Your task to perform on an android device: turn notification dots off Image 0: 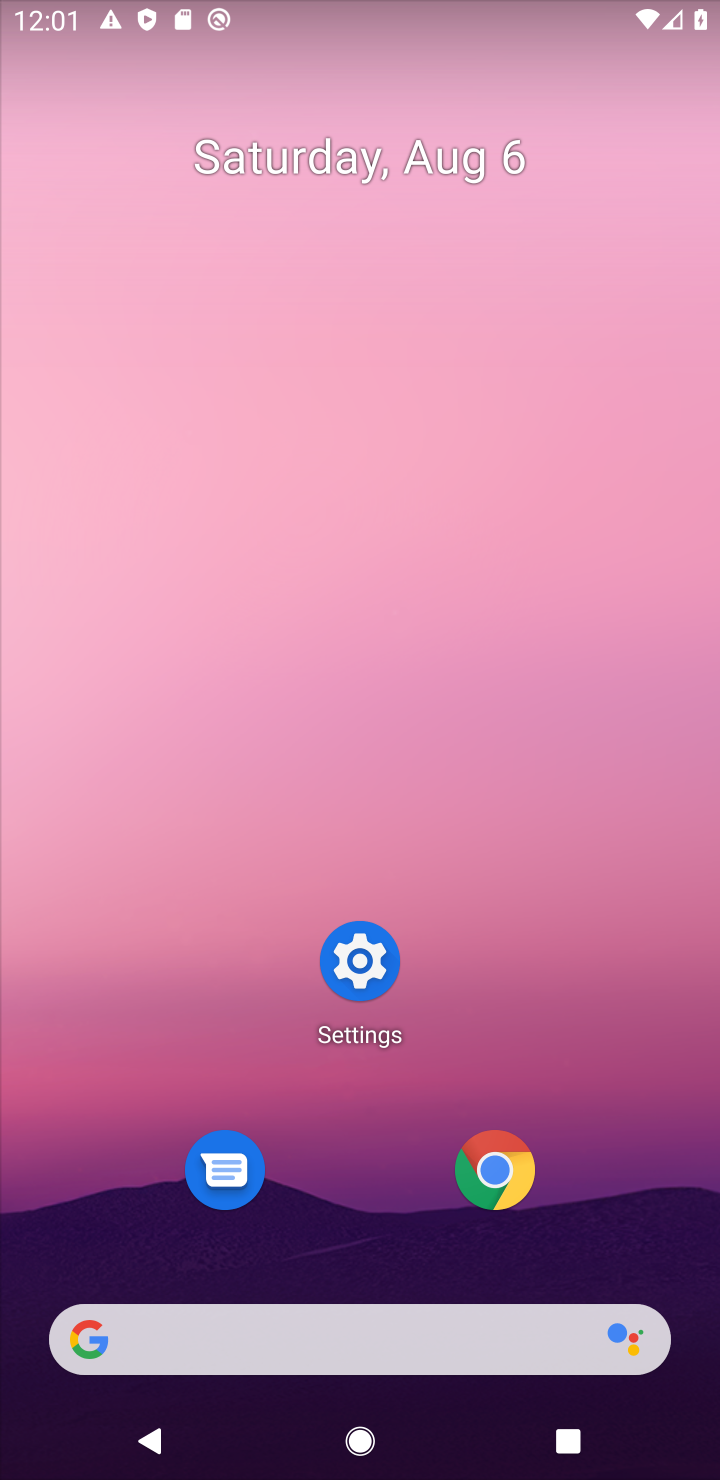
Step 0: click (355, 953)
Your task to perform on an android device: turn notification dots off Image 1: 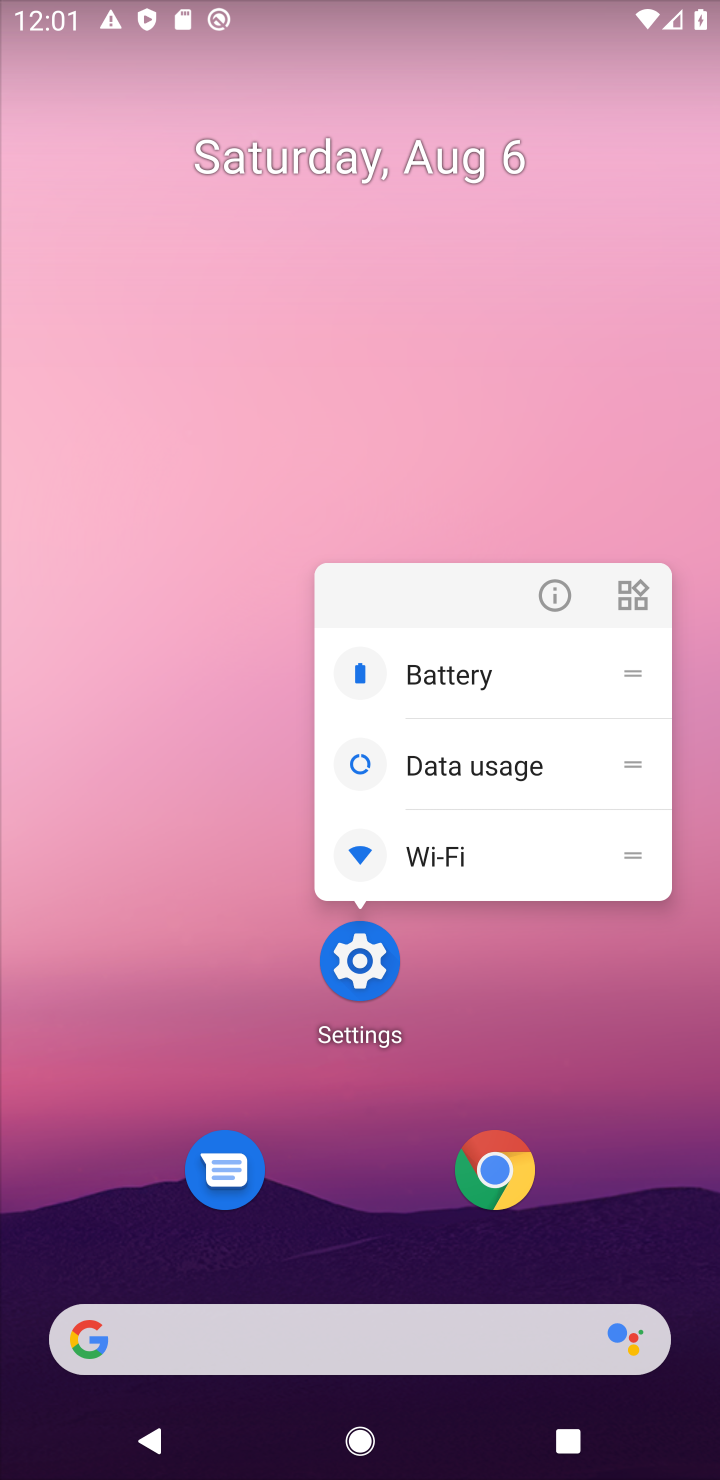
Step 1: click (236, 898)
Your task to perform on an android device: turn notification dots off Image 2: 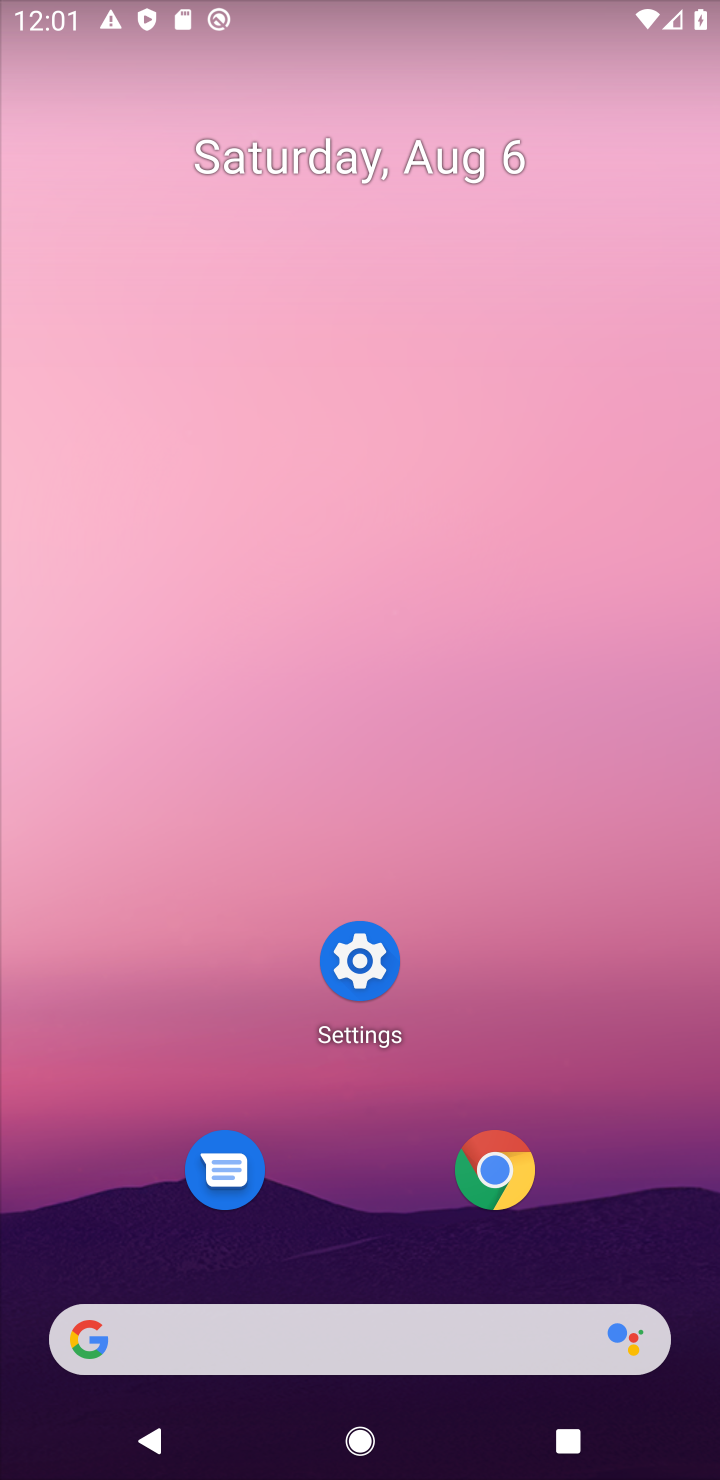
Step 2: click (368, 964)
Your task to perform on an android device: turn notification dots off Image 3: 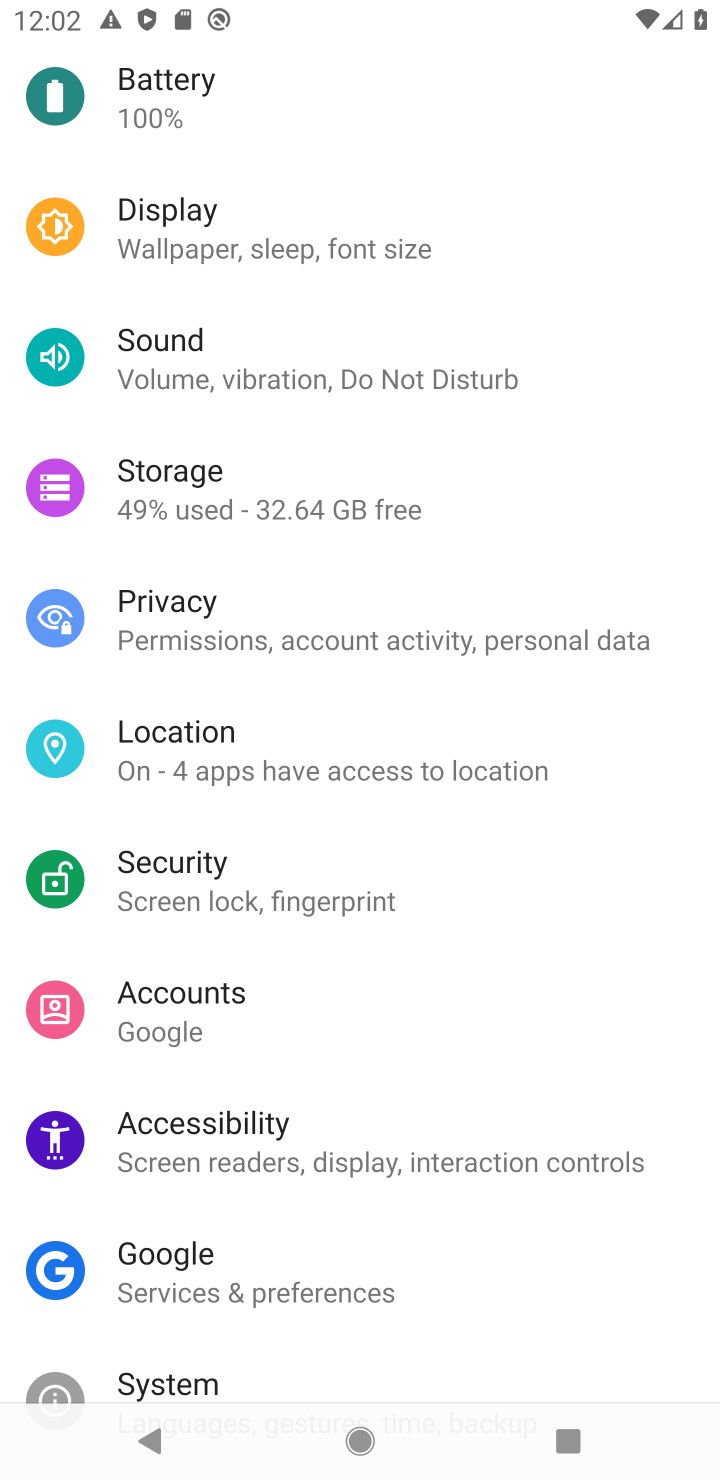
Step 3: drag from (533, 515) to (376, 1291)
Your task to perform on an android device: turn notification dots off Image 4: 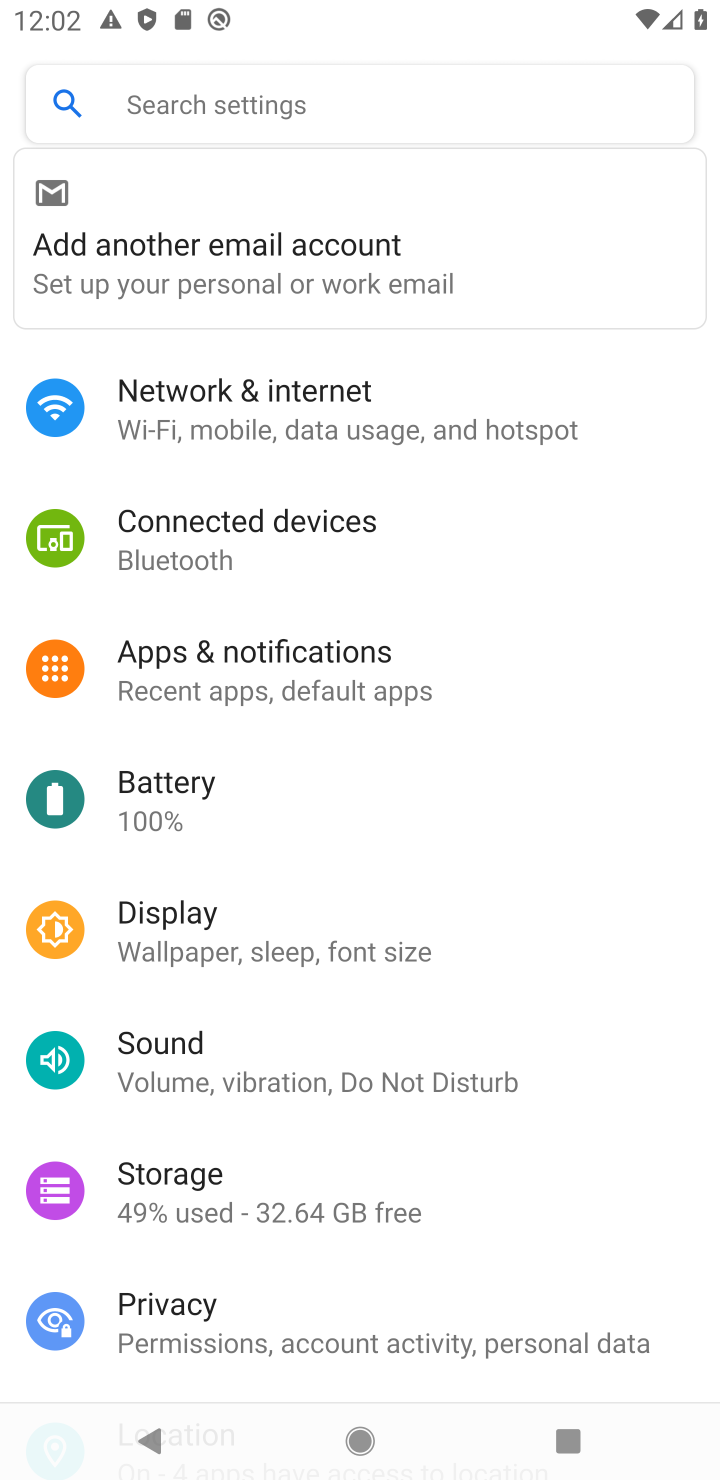
Step 4: click (221, 664)
Your task to perform on an android device: turn notification dots off Image 5: 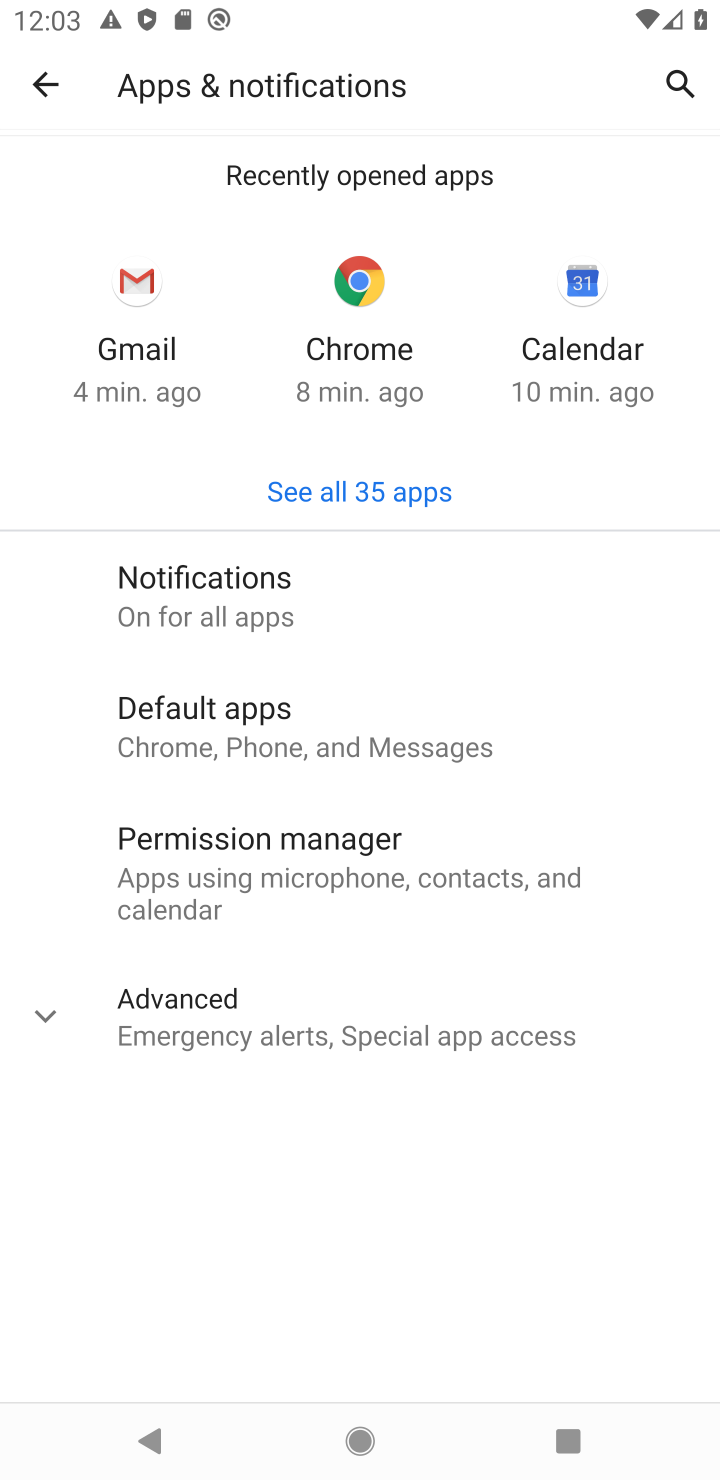
Step 5: click (200, 583)
Your task to perform on an android device: turn notification dots off Image 6: 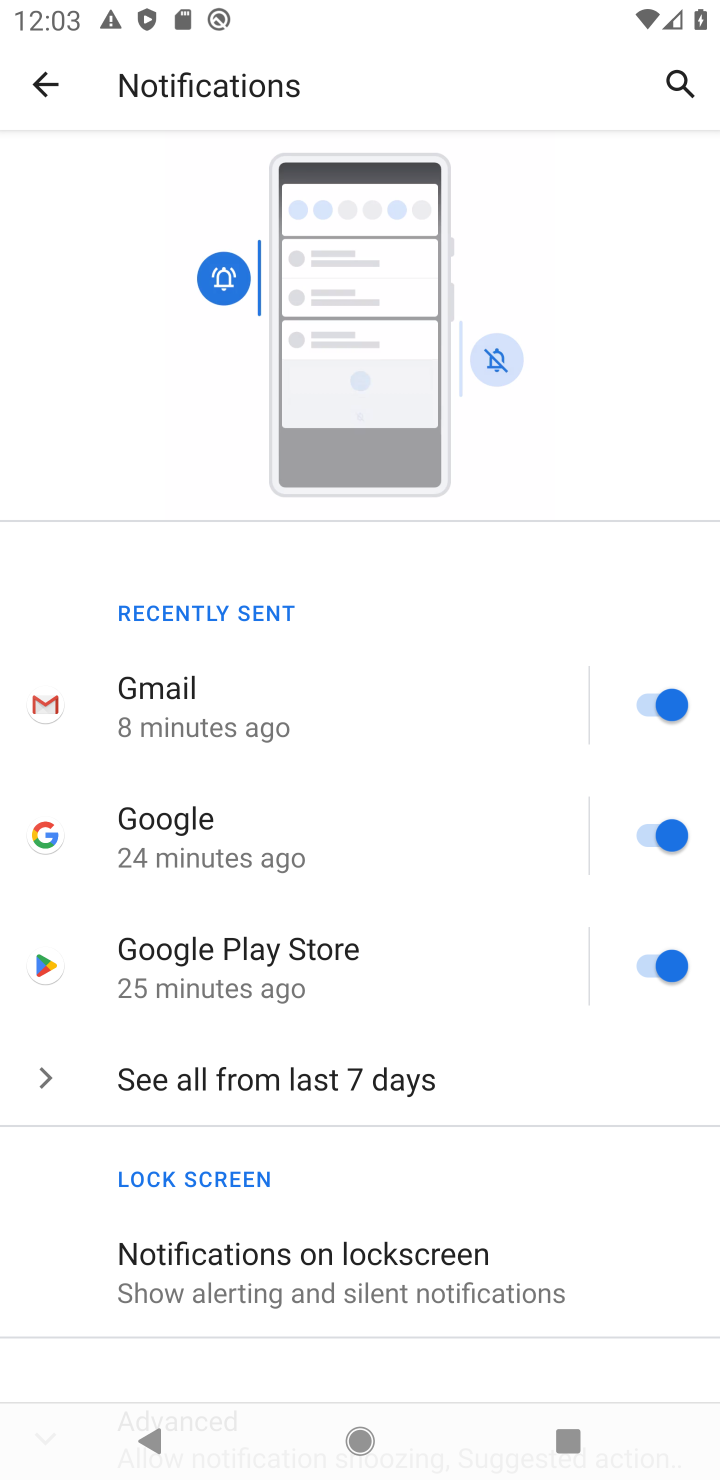
Step 6: drag from (532, 1139) to (518, 573)
Your task to perform on an android device: turn notification dots off Image 7: 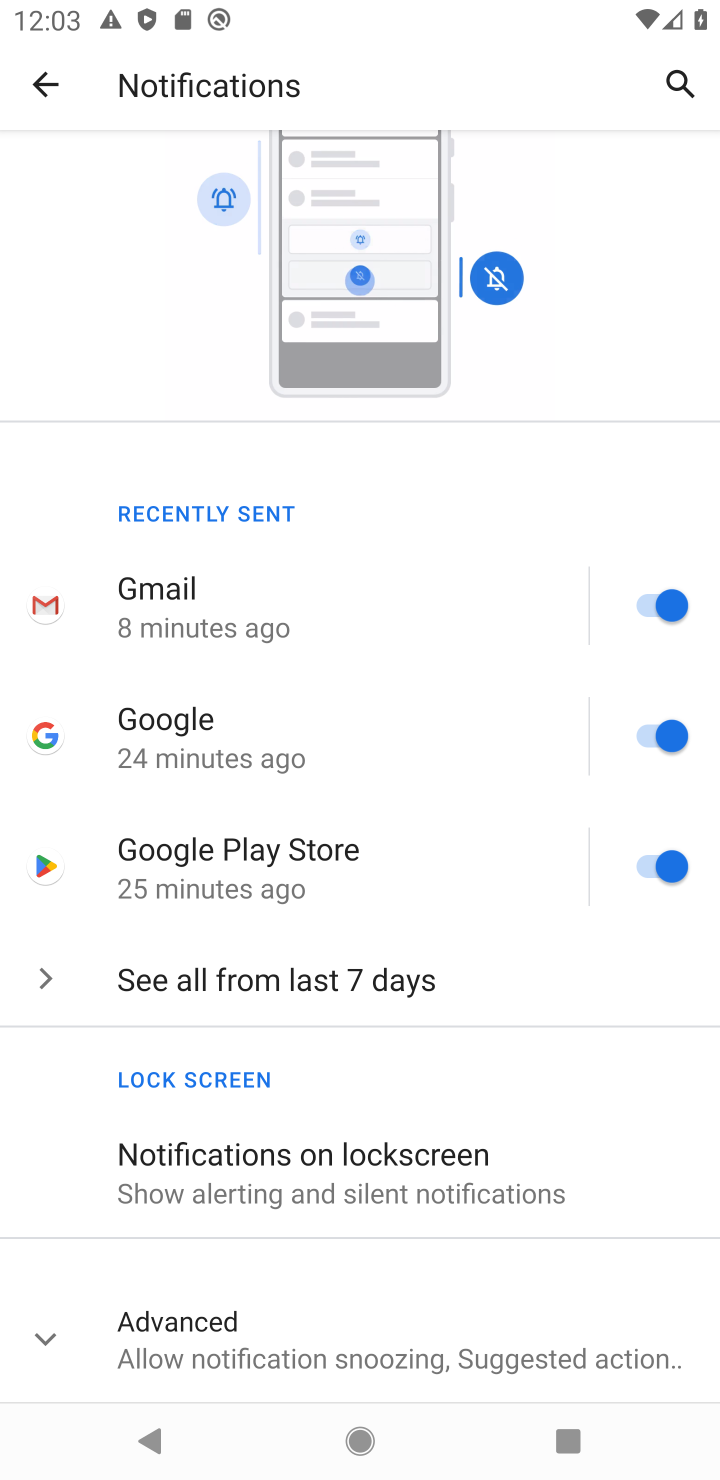
Step 7: click (246, 1307)
Your task to perform on an android device: turn notification dots off Image 8: 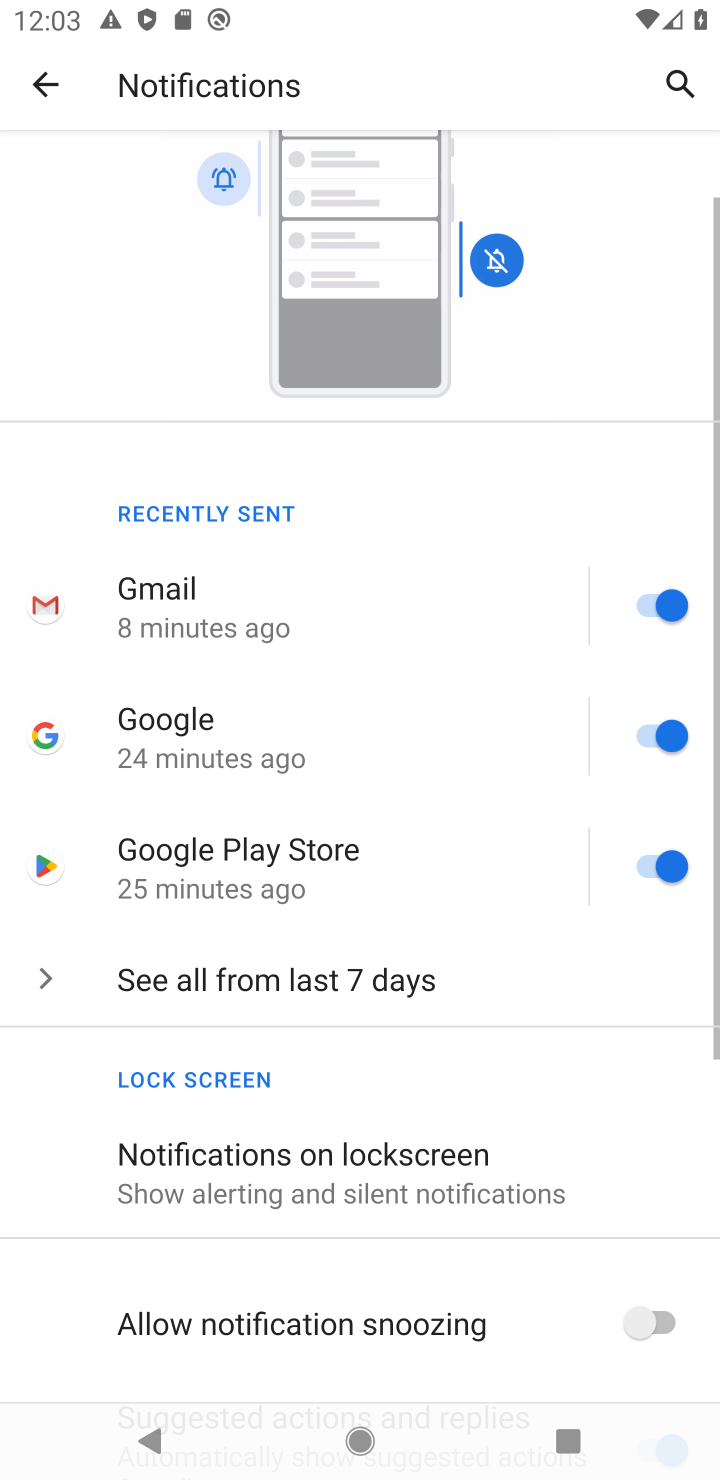
Step 8: drag from (548, 1187) to (582, 367)
Your task to perform on an android device: turn notification dots off Image 9: 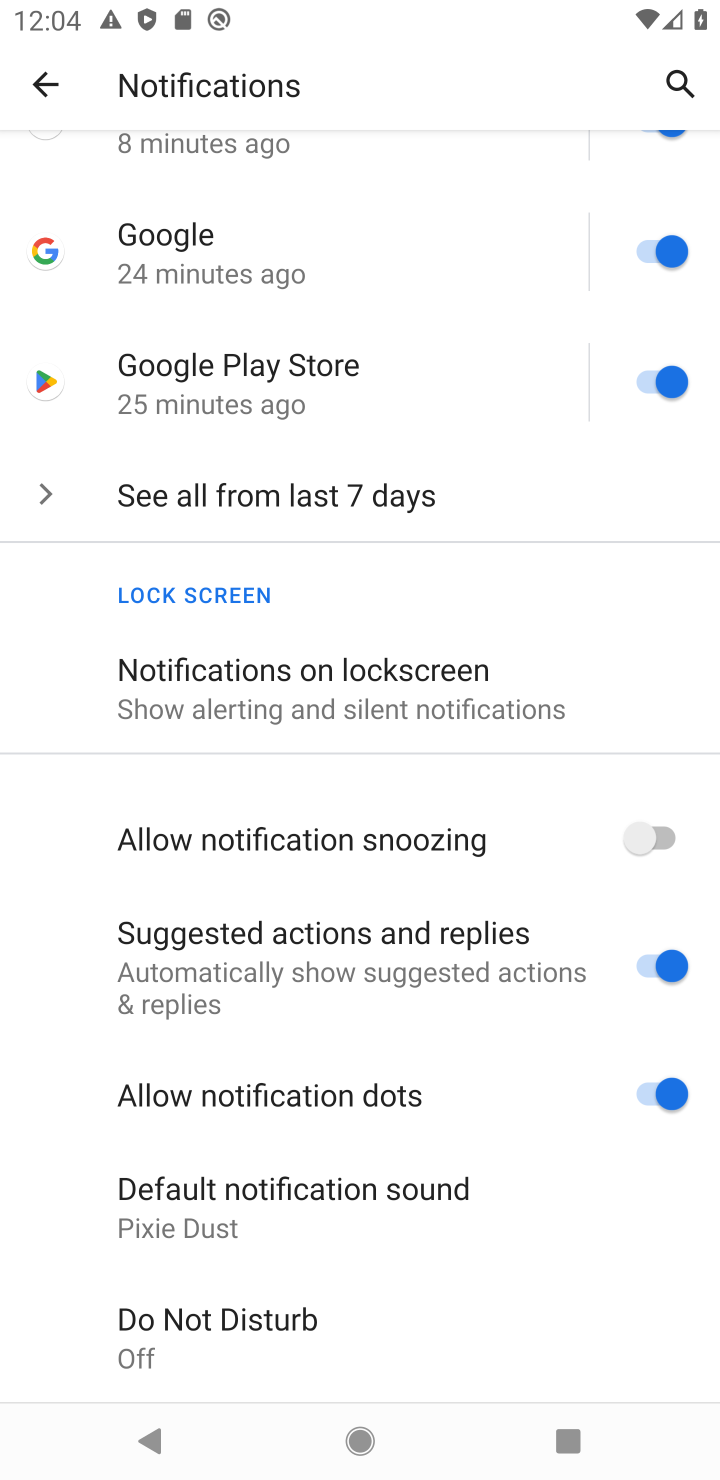
Step 9: click (661, 1095)
Your task to perform on an android device: turn notification dots off Image 10: 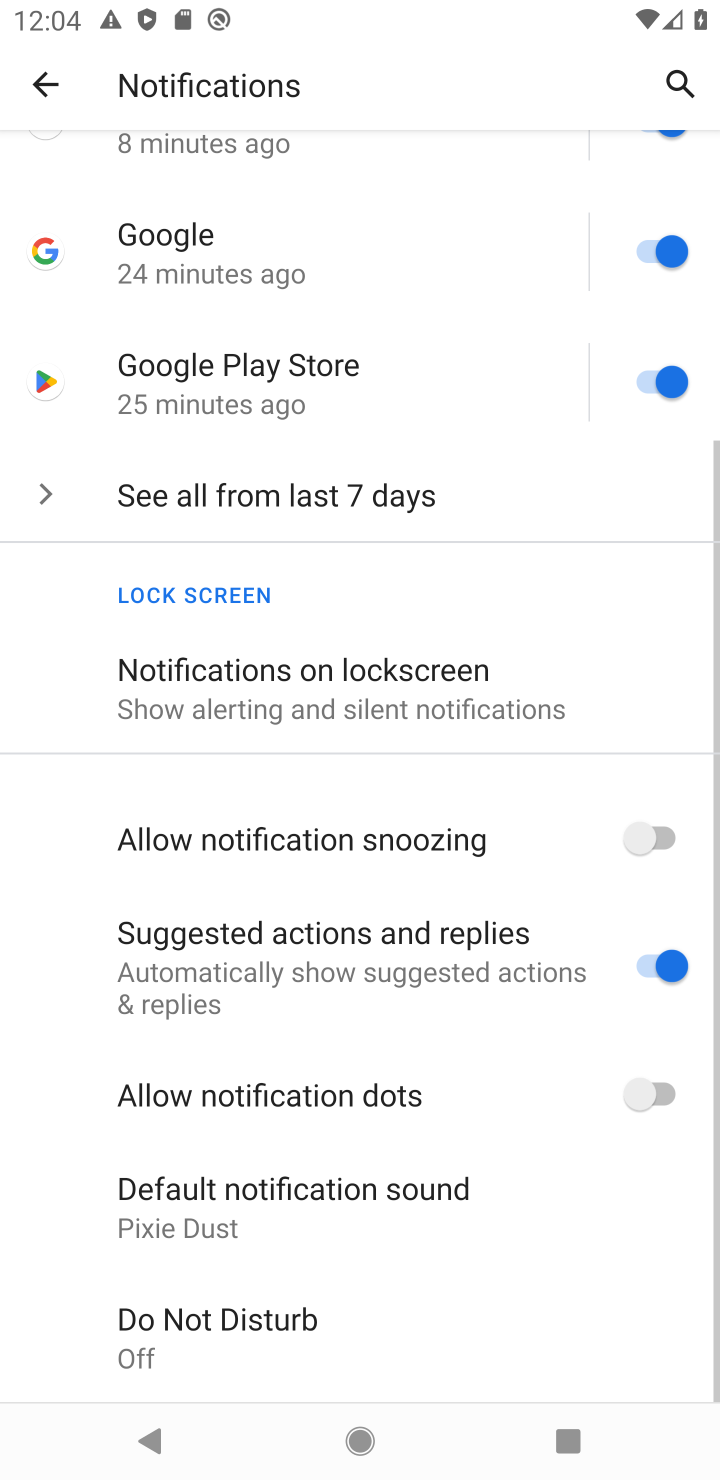
Step 10: task complete